Your task to perform on an android device: set the stopwatch Image 0: 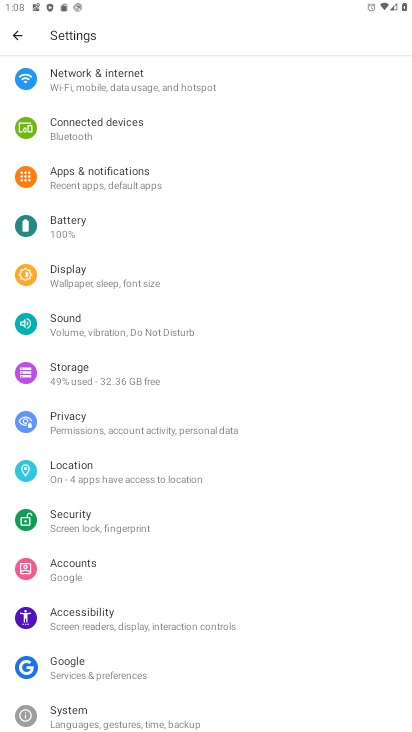
Step 0: press home button
Your task to perform on an android device: set the stopwatch Image 1: 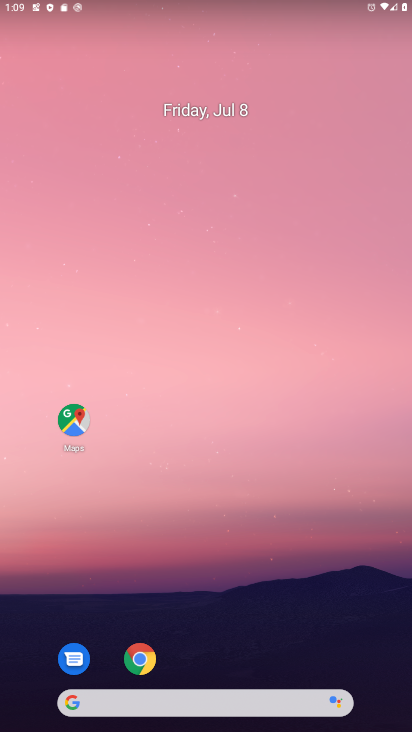
Step 1: drag from (239, 616) to (82, 64)
Your task to perform on an android device: set the stopwatch Image 2: 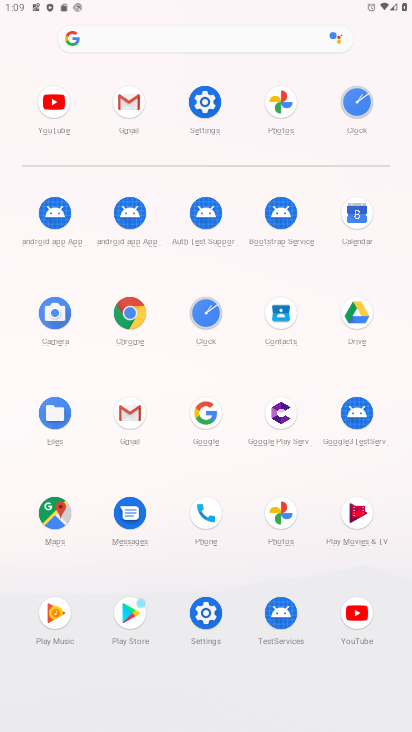
Step 2: click (205, 319)
Your task to perform on an android device: set the stopwatch Image 3: 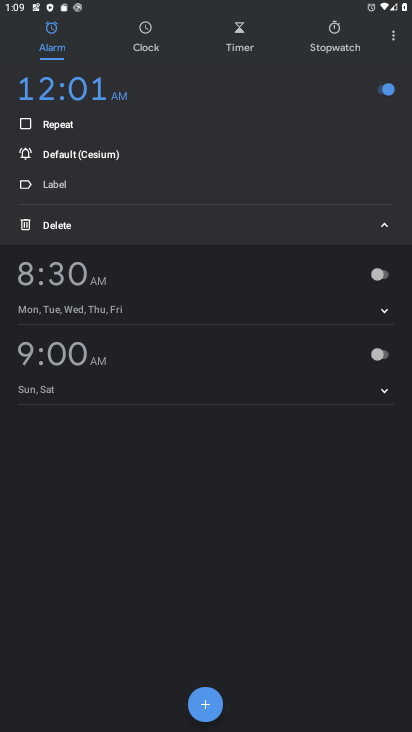
Step 3: click (332, 29)
Your task to perform on an android device: set the stopwatch Image 4: 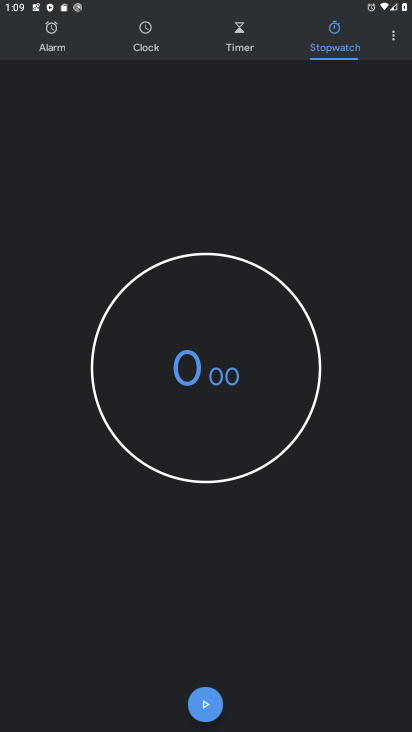
Step 4: task complete